Your task to perform on an android device: open device folders in google photos Image 0: 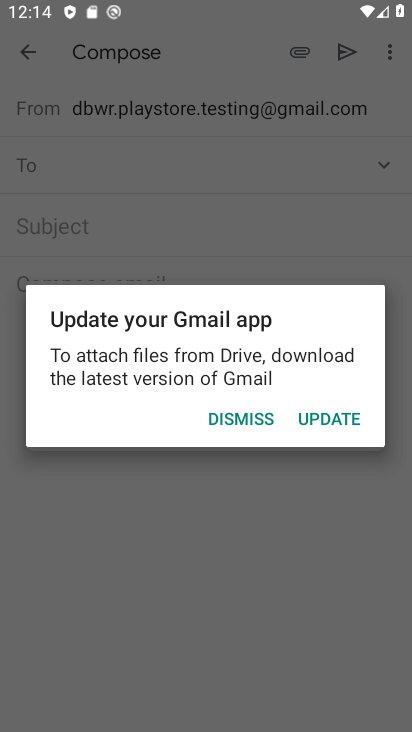
Step 0: press home button
Your task to perform on an android device: open device folders in google photos Image 1: 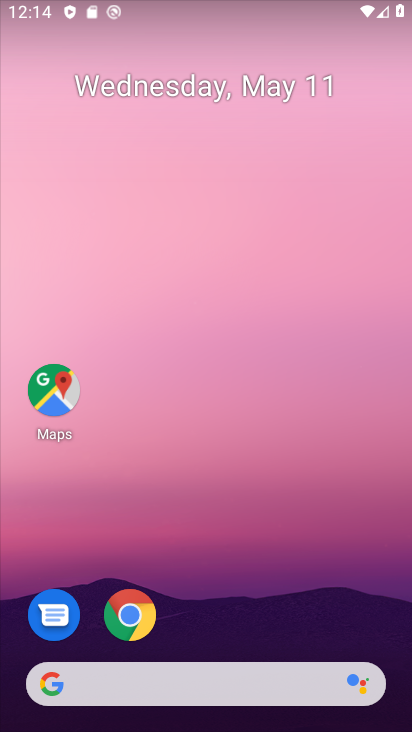
Step 1: drag from (237, 640) to (231, 186)
Your task to perform on an android device: open device folders in google photos Image 2: 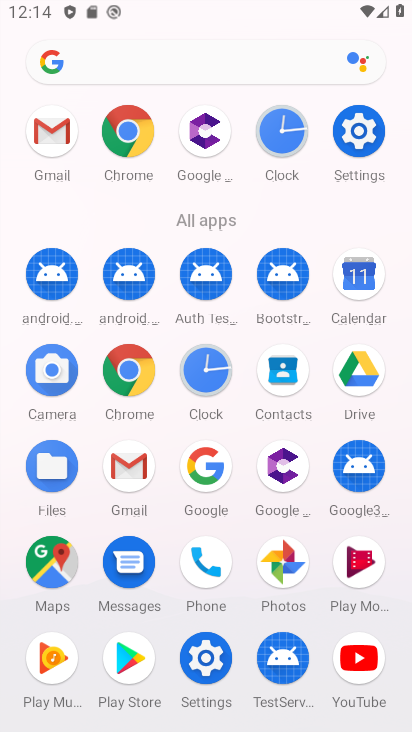
Step 2: click (285, 578)
Your task to perform on an android device: open device folders in google photos Image 3: 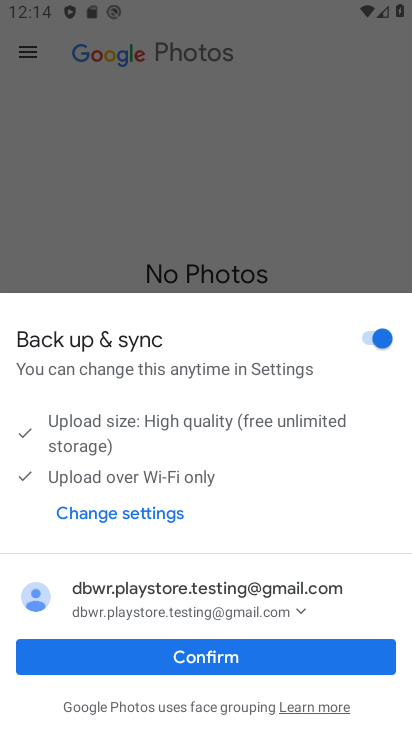
Step 3: click (22, 55)
Your task to perform on an android device: open device folders in google photos Image 4: 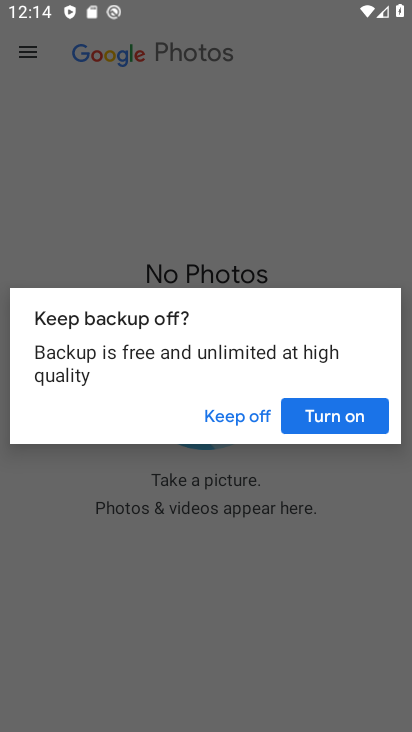
Step 4: click (297, 418)
Your task to perform on an android device: open device folders in google photos Image 5: 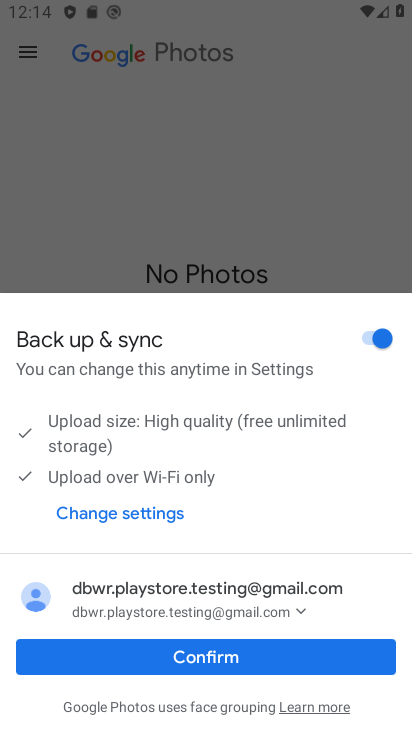
Step 5: click (209, 664)
Your task to perform on an android device: open device folders in google photos Image 6: 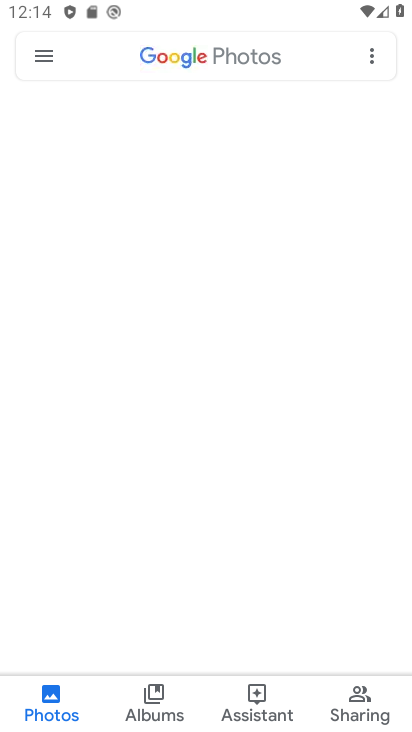
Step 6: click (15, 57)
Your task to perform on an android device: open device folders in google photos Image 7: 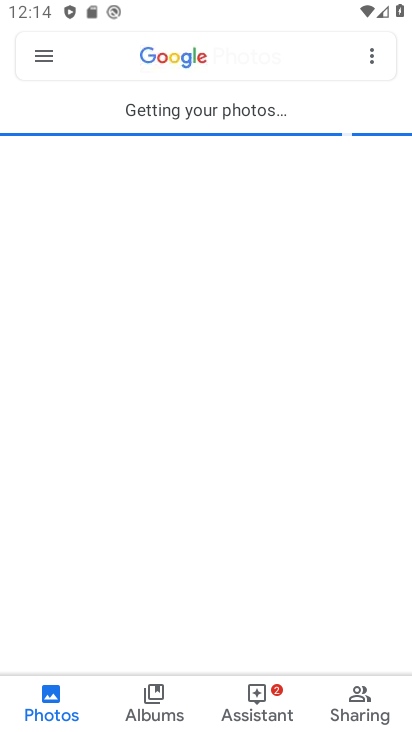
Step 7: click (31, 64)
Your task to perform on an android device: open device folders in google photos Image 8: 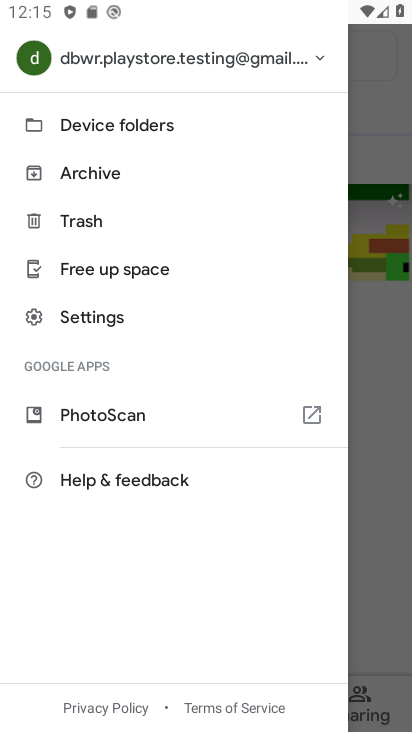
Step 8: click (155, 133)
Your task to perform on an android device: open device folders in google photos Image 9: 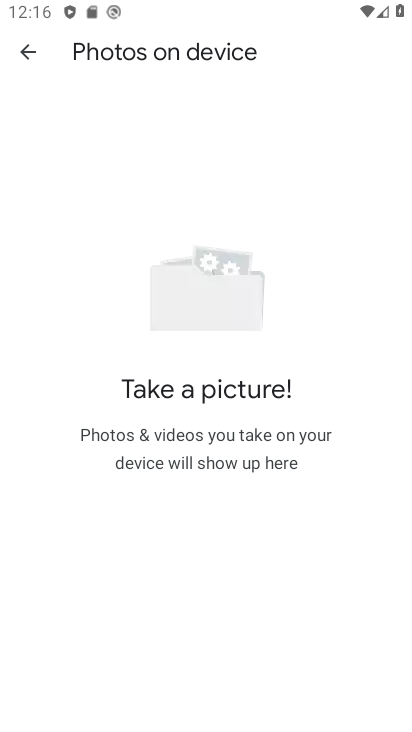
Step 9: task complete